Your task to perform on an android device: change alarm snooze length Image 0: 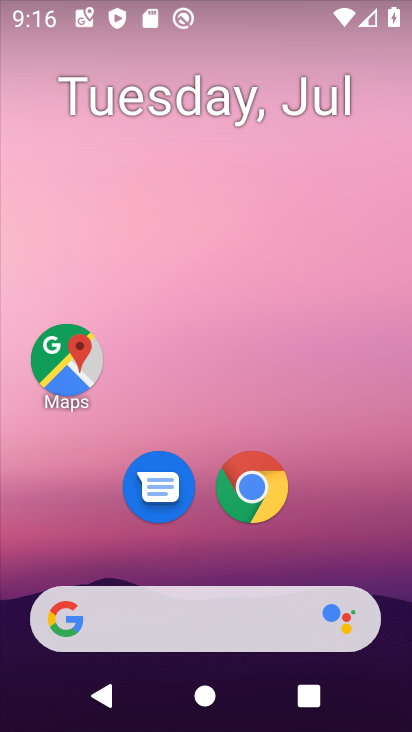
Step 0: drag from (130, 563) to (257, 0)
Your task to perform on an android device: change alarm snooze length Image 1: 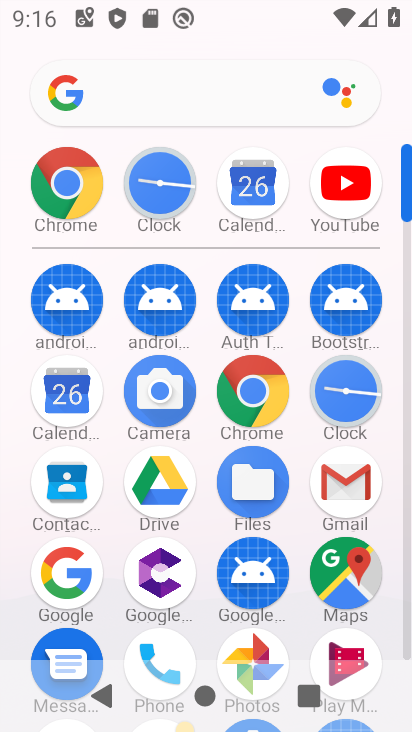
Step 1: click (357, 396)
Your task to perform on an android device: change alarm snooze length Image 2: 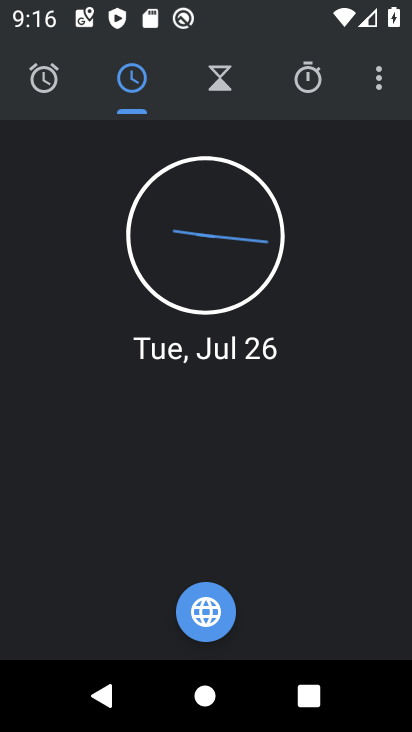
Step 2: click (379, 86)
Your task to perform on an android device: change alarm snooze length Image 3: 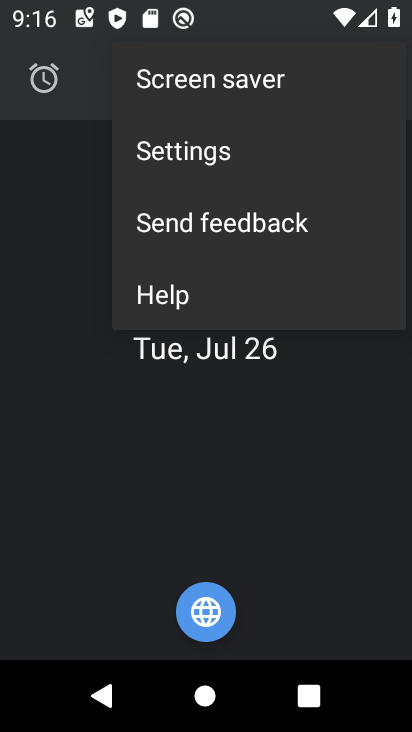
Step 3: click (217, 139)
Your task to perform on an android device: change alarm snooze length Image 4: 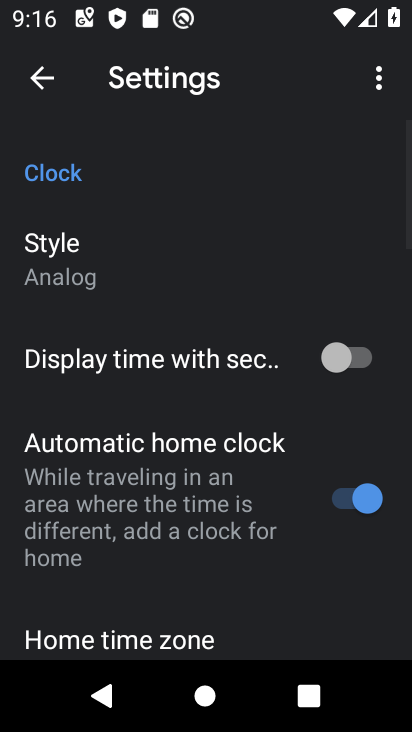
Step 4: drag from (151, 557) to (229, 149)
Your task to perform on an android device: change alarm snooze length Image 5: 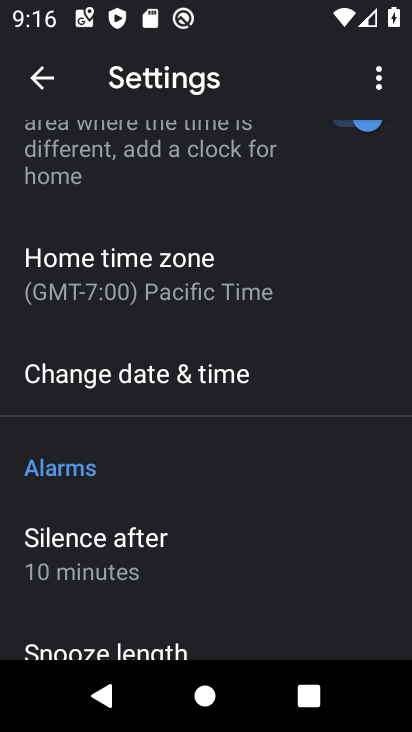
Step 5: drag from (126, 526) to (202, 287)
Your task to perform on an android device: change alarm snooze length Image 6: 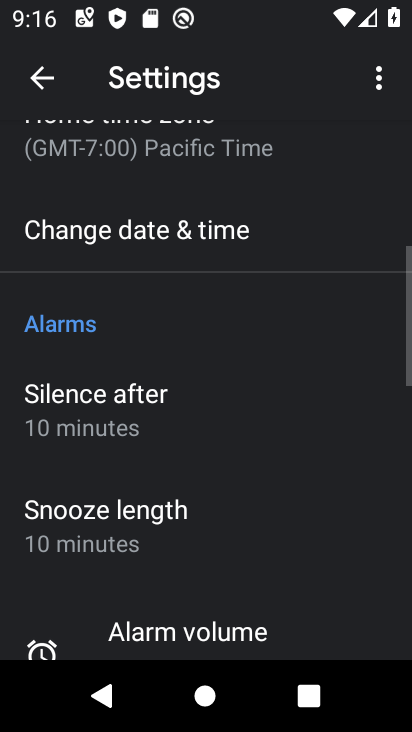
Step 6: click (105, 514)
Your task to perform on an android device: change alarm snooze length Image 7: 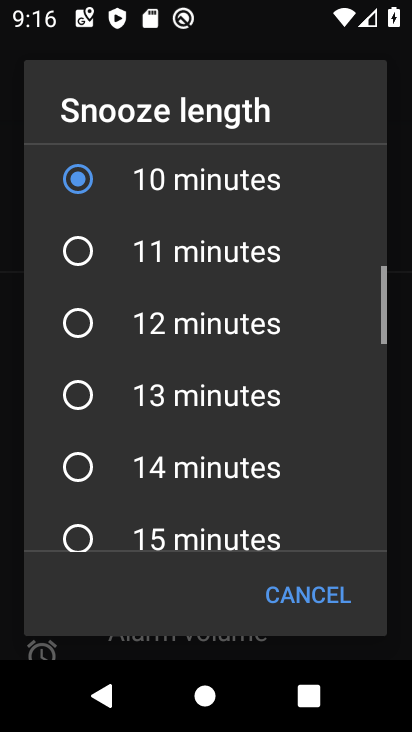
Step 7: click (82, 255)
Your task to perform on an android device: change alarm snooze length Image 8: 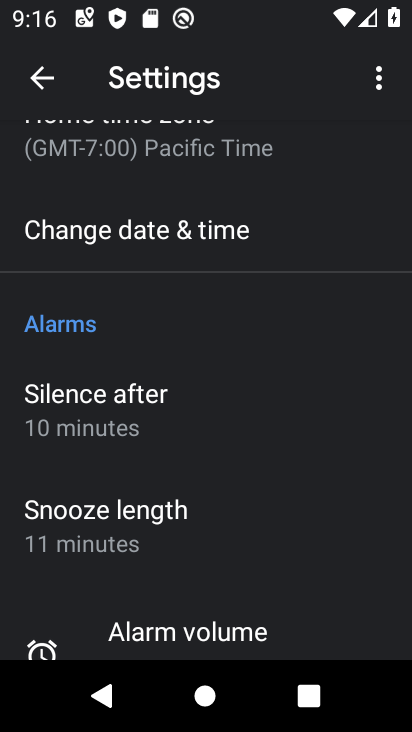
Step 8: task complete